Your task to perform on an android device: Turn off the flashlight Image 0: 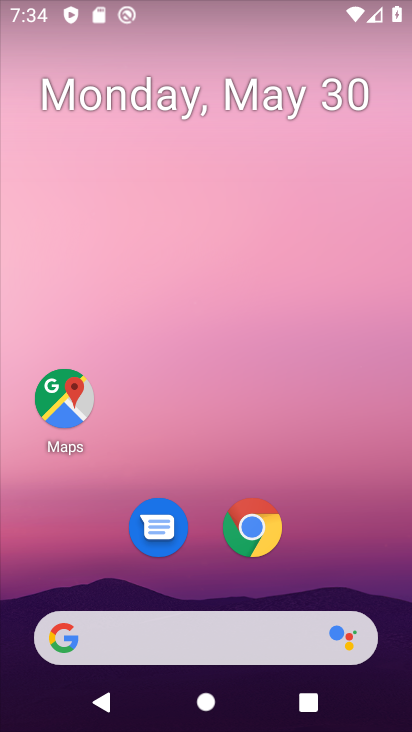
Step 0: drag from (226, 555) to (211, 10)
Your task to perform on an android device: Turn off the flashlight Image 1: 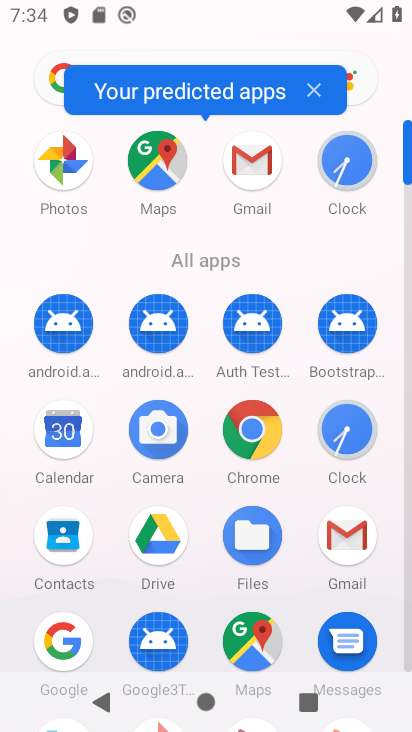
Step 1: drag from (200, 565) to (191, 136)
Your task to perform on an android device: Turn off the flashlight Image 2: 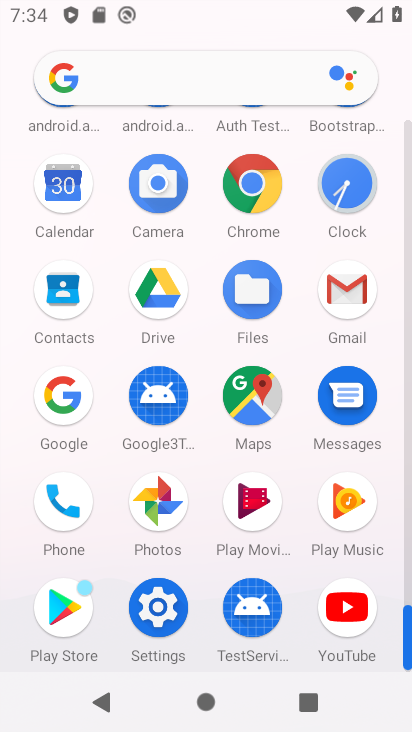
Step 2: click (147, 613)
Your task to perform on an android device: Turn off the flashlight Image 3: 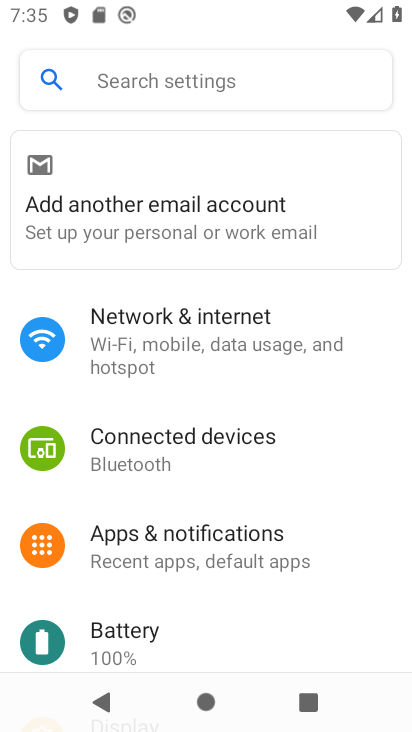
Step 3: task complete